Your task to perform on an android device: add a contact Image 0: 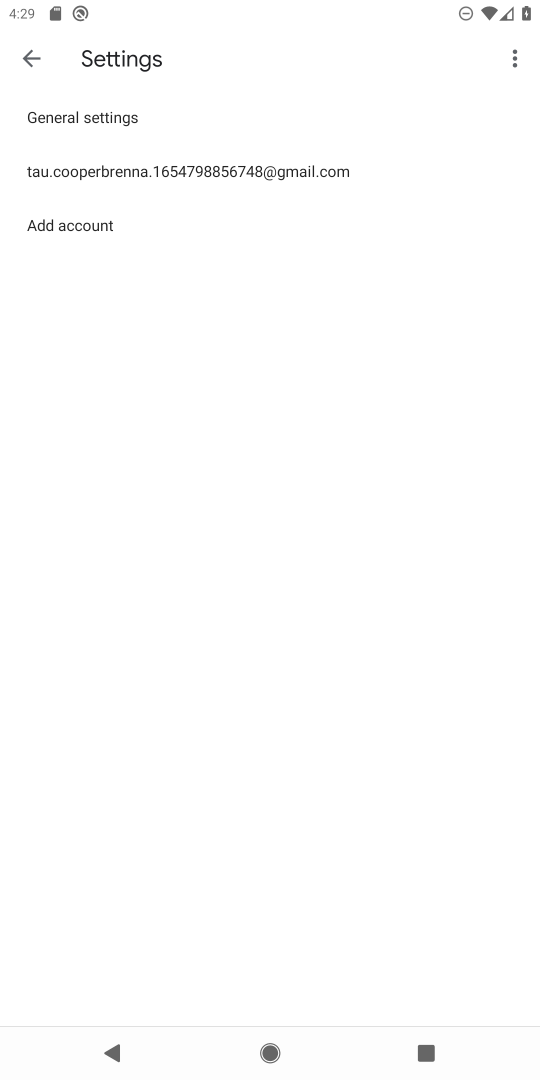
Step 0: press home button
Your task to perform on an android device: add a contact Image 1: 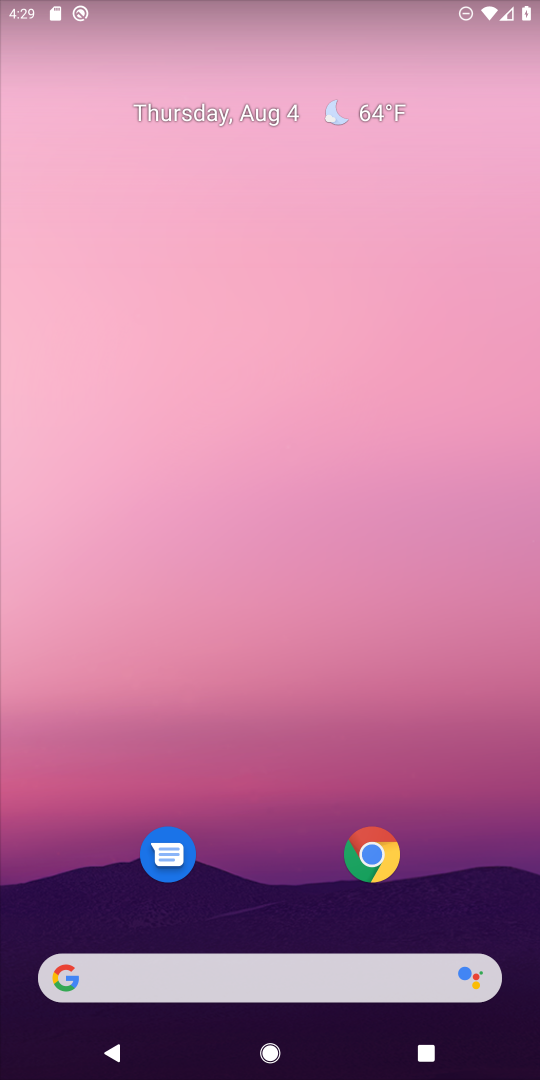
Step 1: drag from (344, 685) to (333, 266)
Your task to perform on an android device: add a contact Image 2: 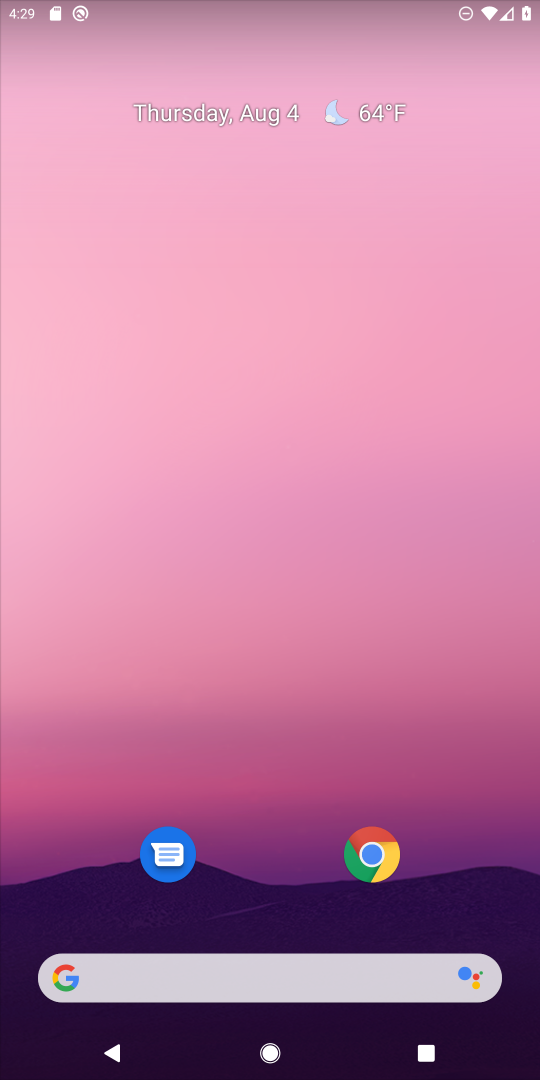
Step 2: drag from (286, 770) to (265, 283)
Your task to perform on an android device: add a contact Image 3: 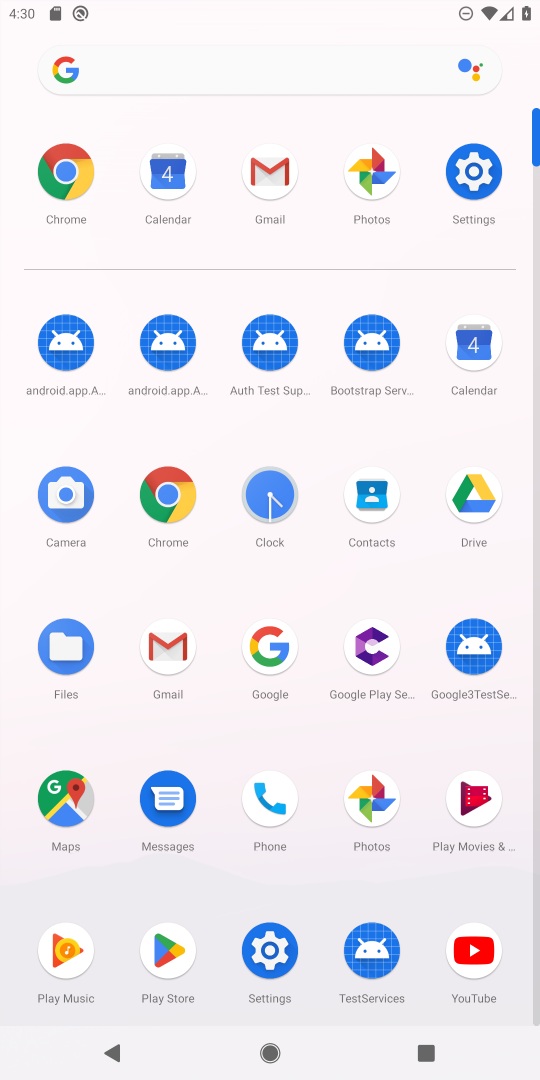
Step 3: click (367, 509)
Your task to perform on an android device: add a contact Image 4: 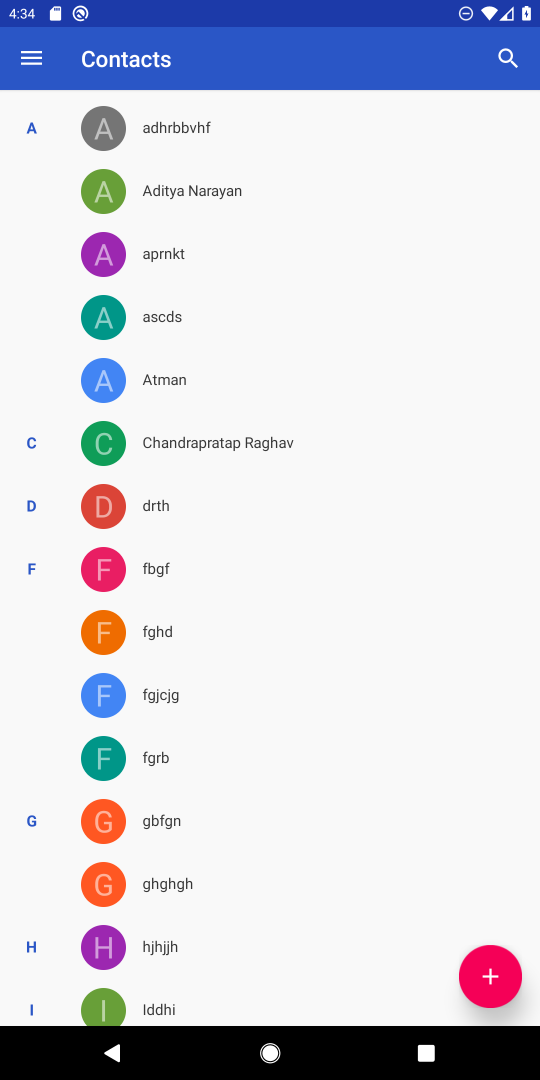
Step 4: task complete